Your task to perform on an android device: clear history in the chrome app Image 0: 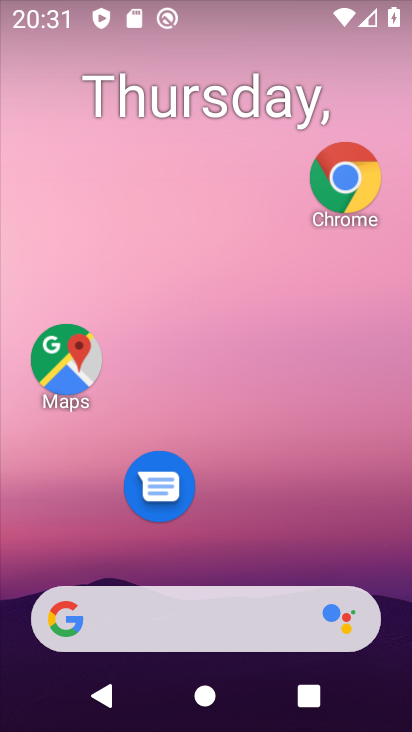
Step 0: click (333, 194)
Your task to perform on an android device: clear history in the chrome app Image 1: 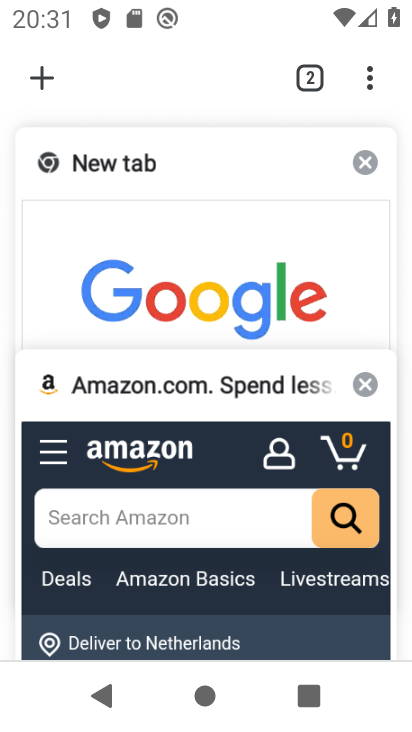
Step 1: click (366, 79)
Your task to perform on an android device: clear history in the chrome app Image 2: 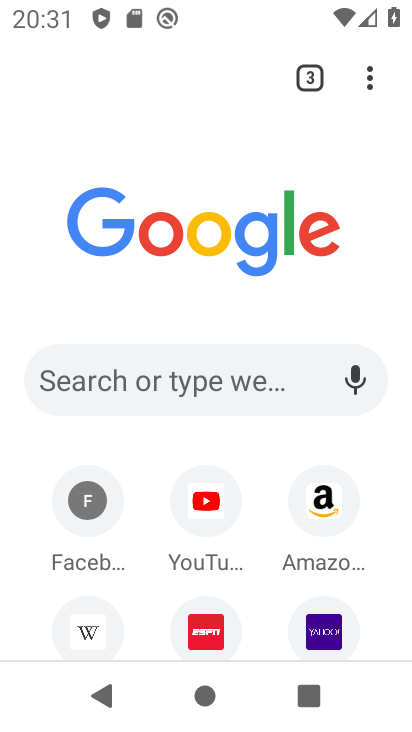
Step 2: click (373, 85)
Your task to perform on an android device: clear history in the chrome app Image 3: 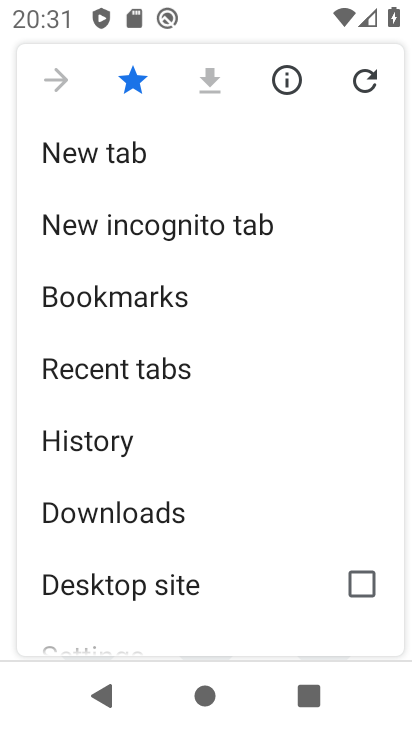
Step 3: click (95, 435)
Your task to perform on an android device: clear history in the chrome app Image 4: 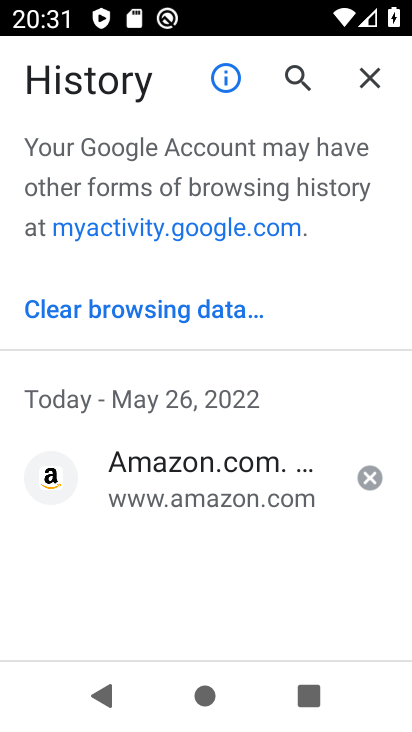
Step 4: click (93, 311)
Your task to perform on an android device: clear history in the chrome app Image 5: 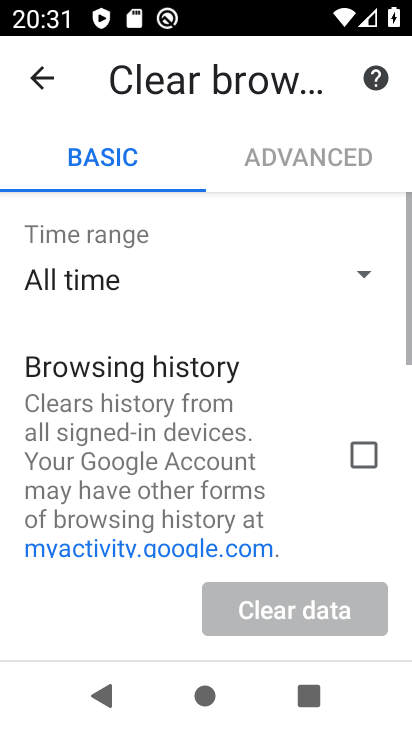
Step 5: click (351, 460)
Your task to perform on an android device: clear history in the chrome app Image 6: 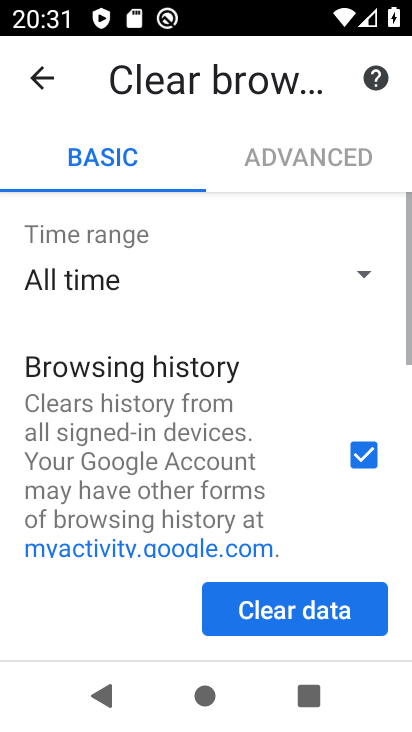
Step 6: drag from (349, 463) to (296, 201)
Your task to perform on an android device: clear history in the chrome app Image 7: 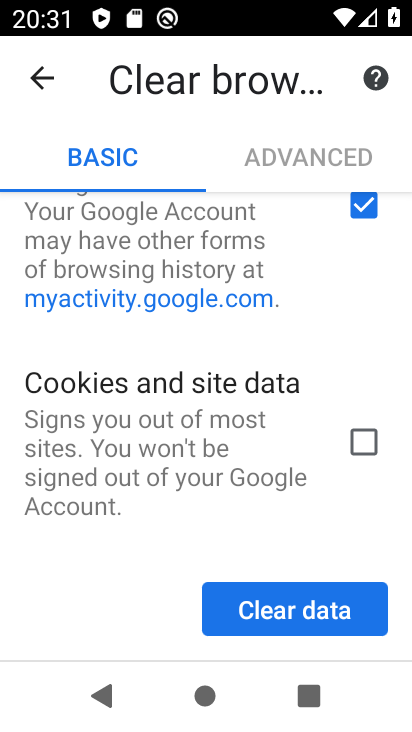
Step 7: click (329, 602)
Your task to perform on an android device: clear history in the chrome app Image 8: 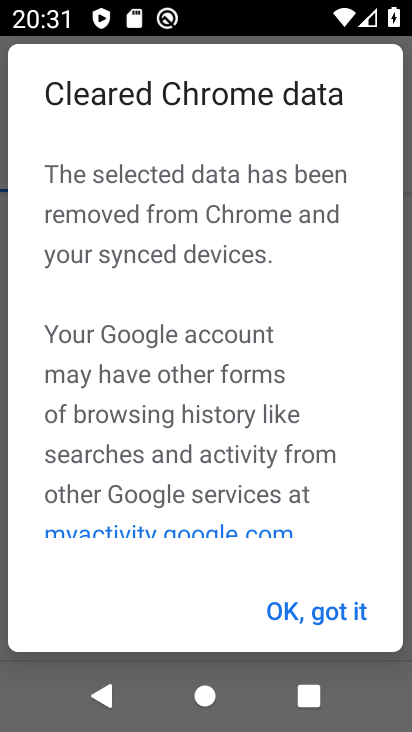
Step 8: click (325, 625)
Your task to perform on an android device: clear history in the chrome app Image 9: 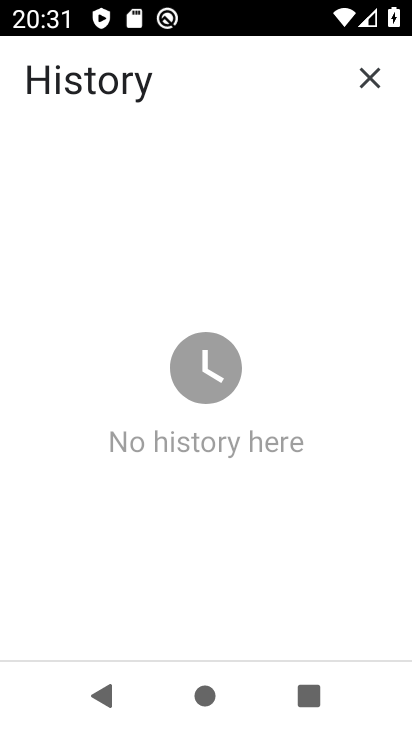
Step 9: task complete